Your task to perform on an android device: delete browsing data in the chrome app Image 0: 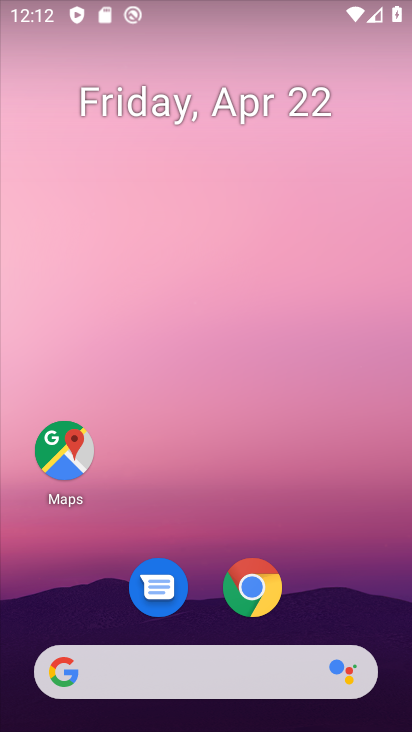
Step 0: click (254, 583)
Your task to perform on an android device: delete browsing data in the chrome app Image 1: 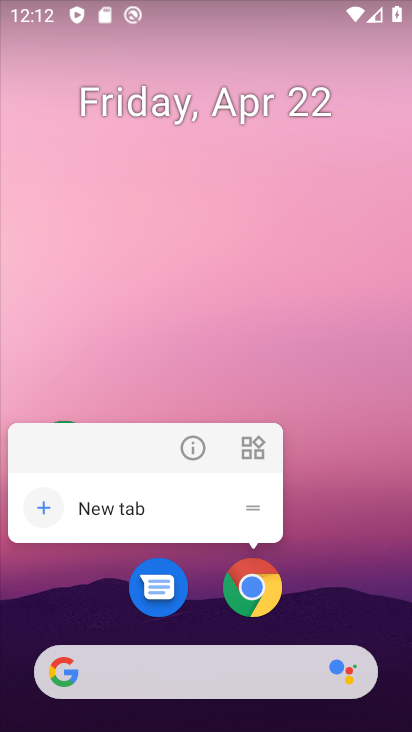
Step 1: click (200, 462)
Your task to perform on an android device: delete browsing data in the chrome app Image 2: 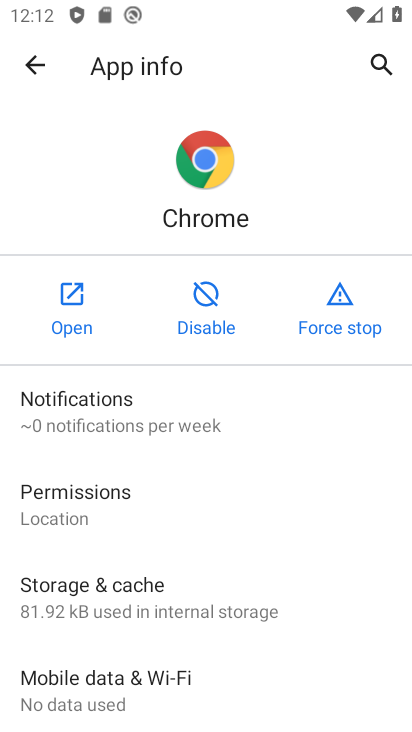
Step 2: click (78, 304)
Your task to perform on an android device: delete browsing data in the chrome app Image 3: 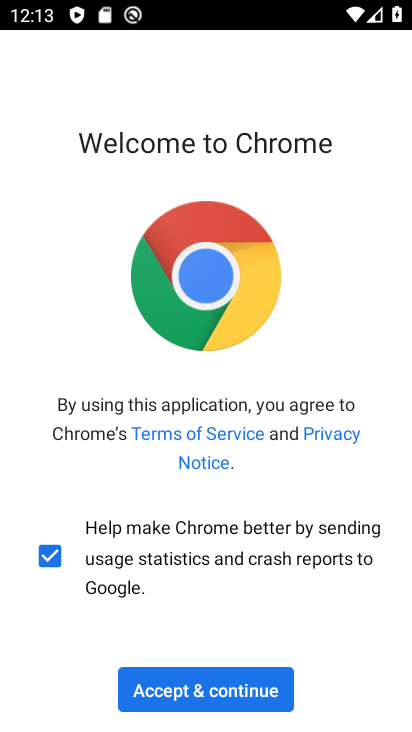
Step 3: click (217, 684)
Your task to perform on an android device: delete browsing data in the chrome app Image 4: 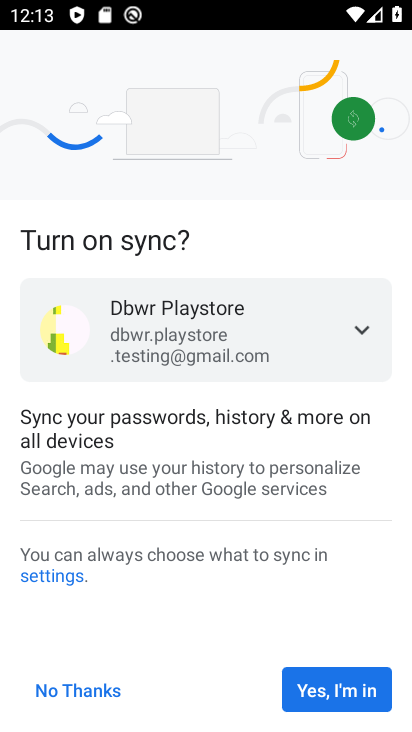
Step 4: click (354, 705)
Your task to perform on an android device: delete browsing data in the chrome app Image 5: 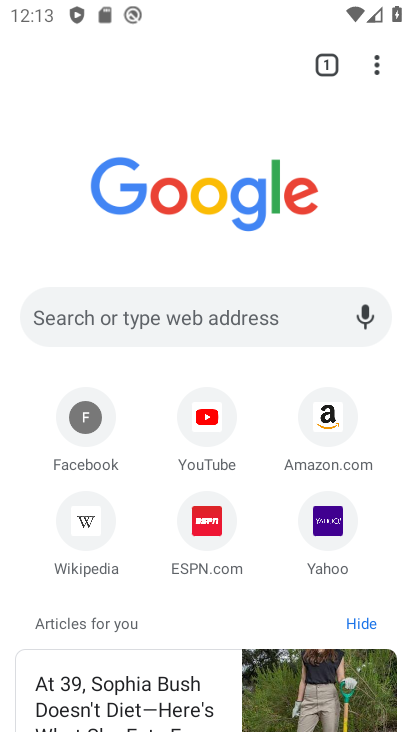
Step 5: click (163, 324)
Your task to perform on an android device: delete browsing data in the chrome app Image 6: 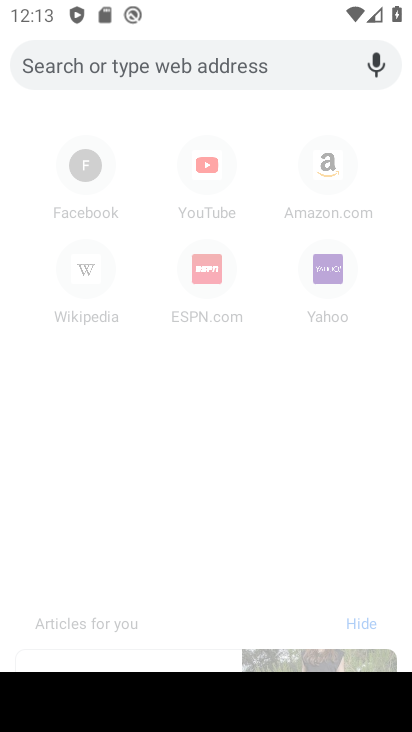
Step 6: click (148, 407)
Your task to perform on an android device: delete browsing data in the chrome app Image 7: 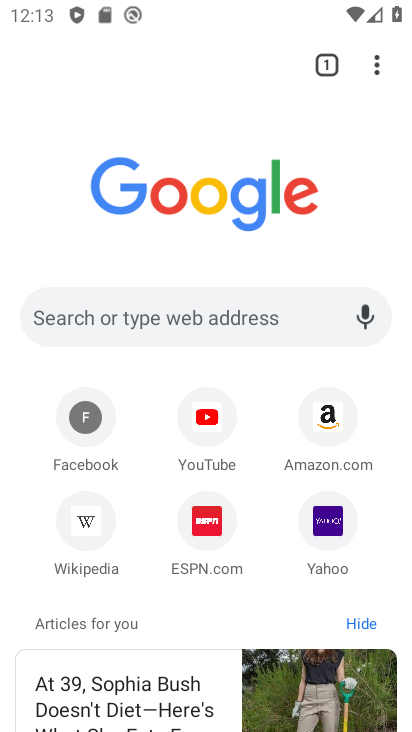
Step 7: click (373, 63)
Your task to perform on an android device: delete browsing data in the chrome app Image 8: 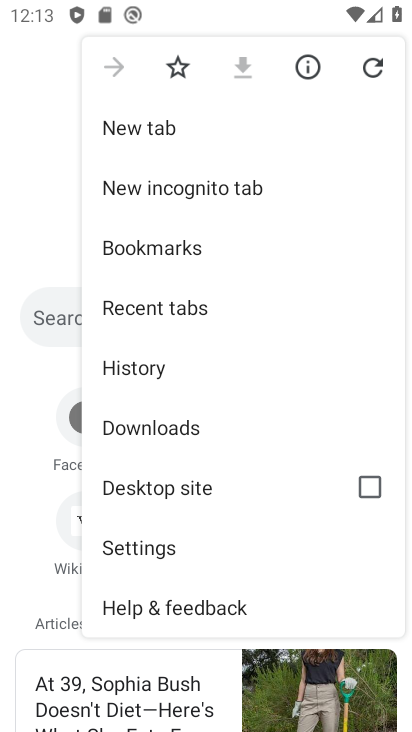
Step 8: click (136, 369)
Your task to perform on an android device: delete browsing data in the chrome app Image 9: 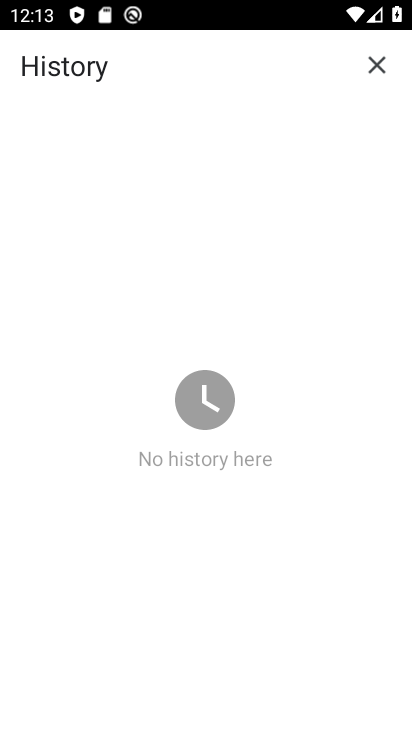
Step 9: task complete